Your task to perform on an android device: allow cookies in the chrome app Image 0: 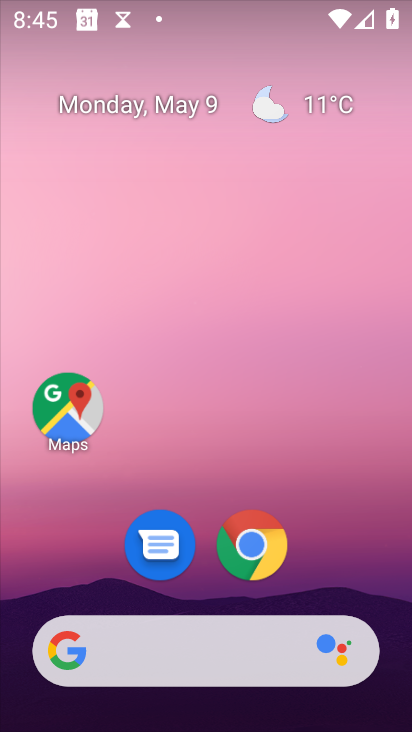
Step 0: click (260, 542)
Your task to perform on an android device: allow cookies in the chrome app Image 1: 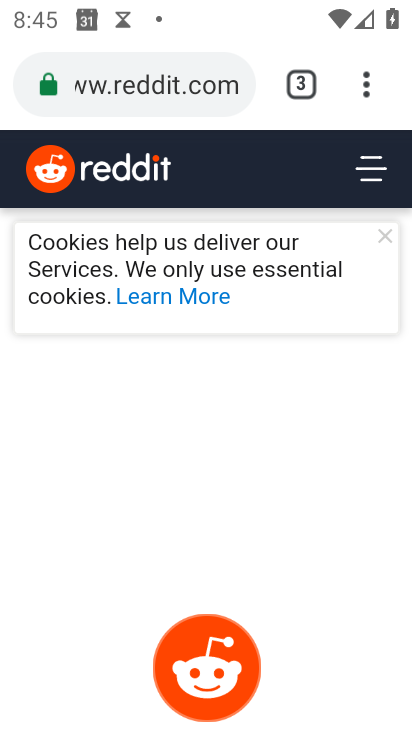
Step 1: click (365, 95)
Your task to perform on an android device: allow cookies in the chrome app Image 2: 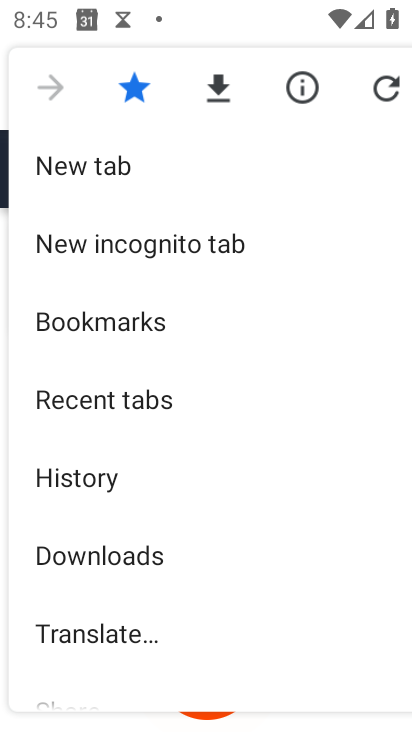
Step 2: drag from (132, 538) to (168, 301)
Your task to perform on an android device: allow cookies in the chrome app Image 3: 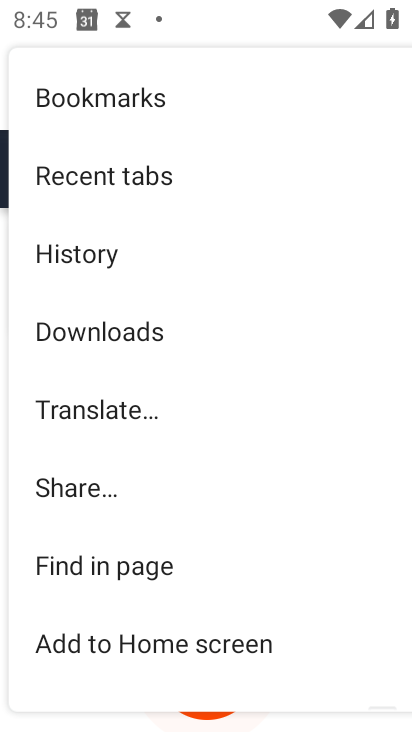
Step 3: drag from (147, 605) to (194, 329)
Your task to perform on an android device: allow cookies in the chrome app Image 4: 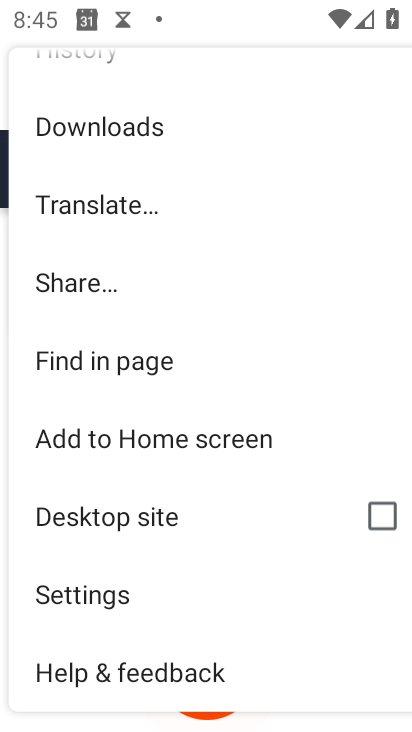
Step 4: drag from (151, 628) to (185, 410)
Your task to perform on an android device: allow cookies in the chrome app Image 5: 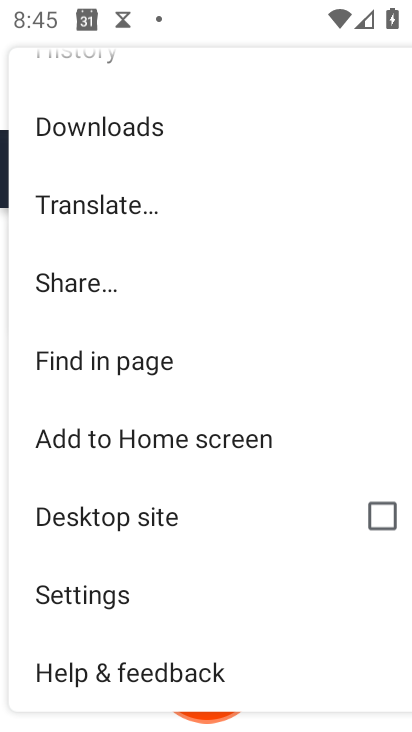
Step 5: click (92, 590)
Your task to perform on an android device: allow cookies in the chrome app Image 6: 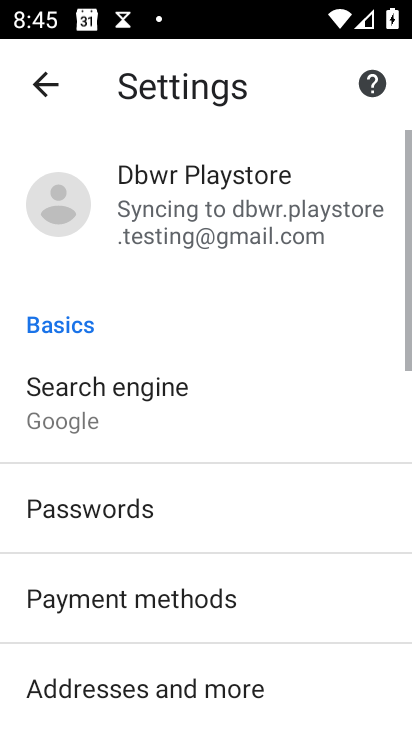
Step 6: drag from (159, 659) to (184, 355)
Your task to perform on an android device: allow cookies in the chrome app Image 7: 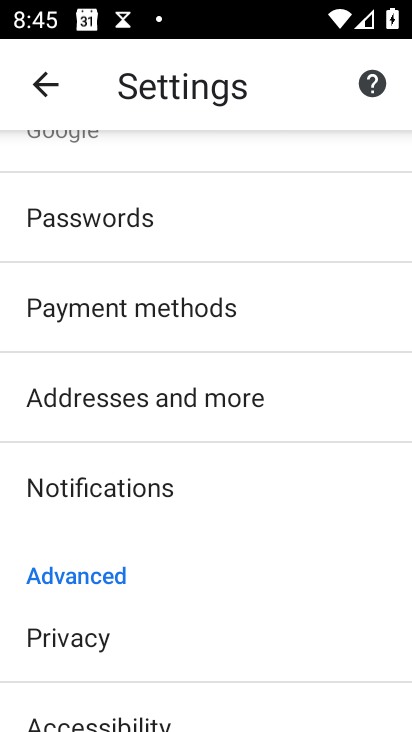
Step 7: drag from (149, 684) to (190, 375)
Your task to perform on an android device: allow cookies in the chrome app Image 8: 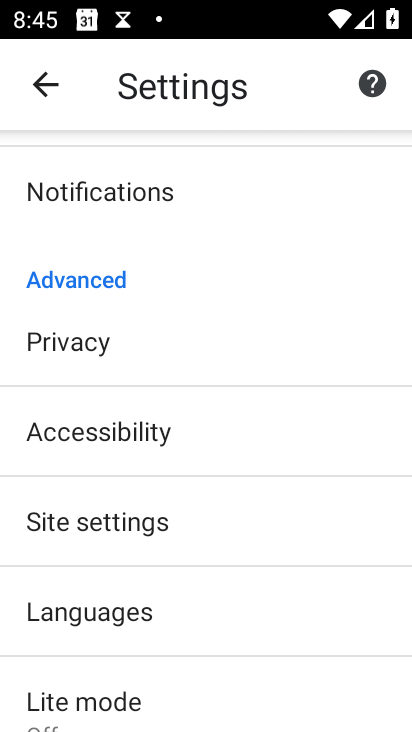
Step 8: click (134, 519)
Your task to perform on an android device: allow cookies in the chrome app Image 9: 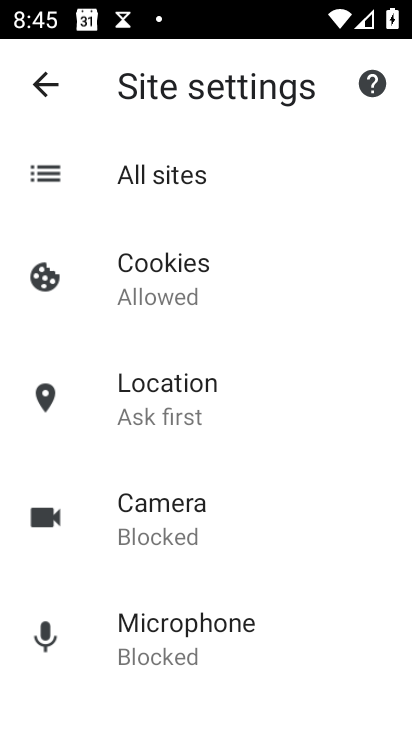
Step 9: click (156, 280)
Your task to perform on an android device: allow cookies in the chrome app Image 10: 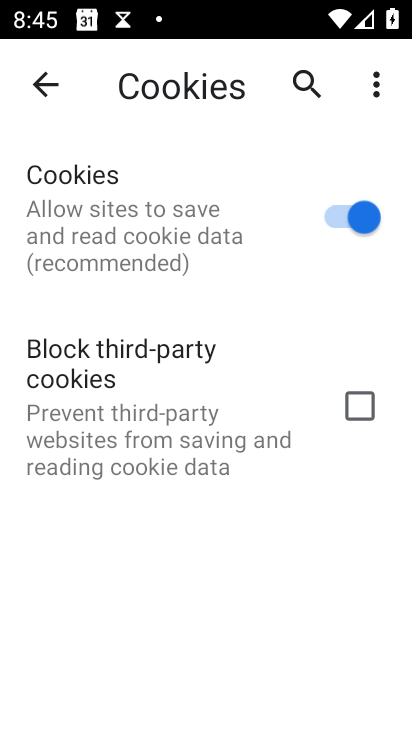
Step 10: task complete